Your task to perform on an android device: Open the calendar app, open the side menu, and click the "Day" option Image 0: 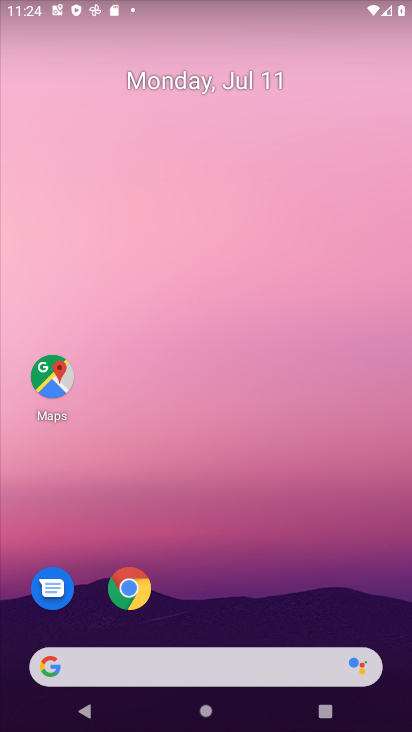
Step 0: drag from (270, 376) to (245, 33)
Your task to perform on an android device: Open the calendar app, open the side menu, and click the "Day" option Image 1: 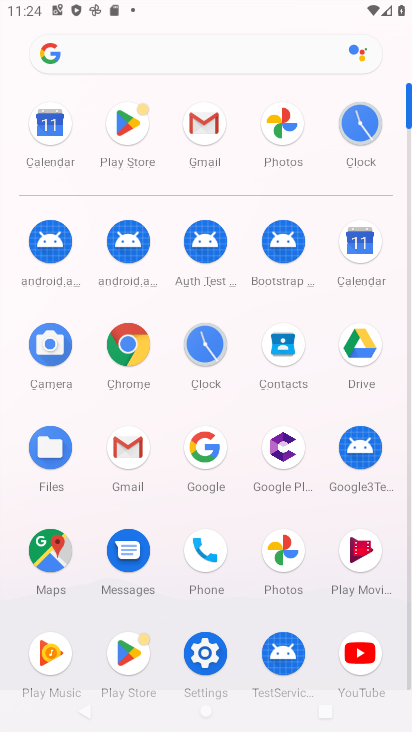
Step 1: click (367, 254)
Your task to perform on an android device: Open the calendar app, open the side menu, and click the "Day" option Image 2: 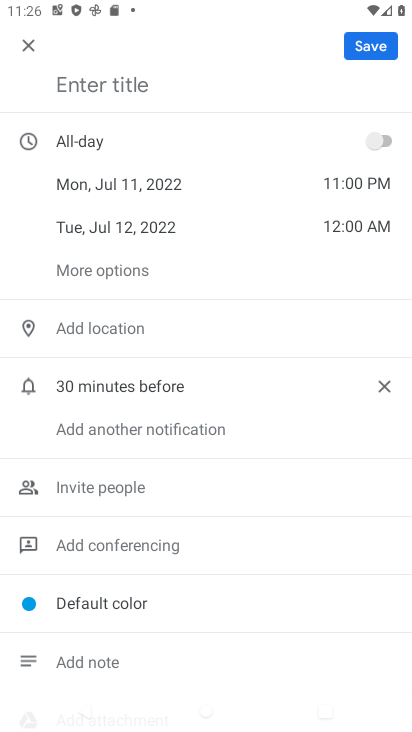
Step 2: click (31, 45)
Your task to perform on an android device: Open the calendar app, open the side menu, and click the "Day" option Image 3: 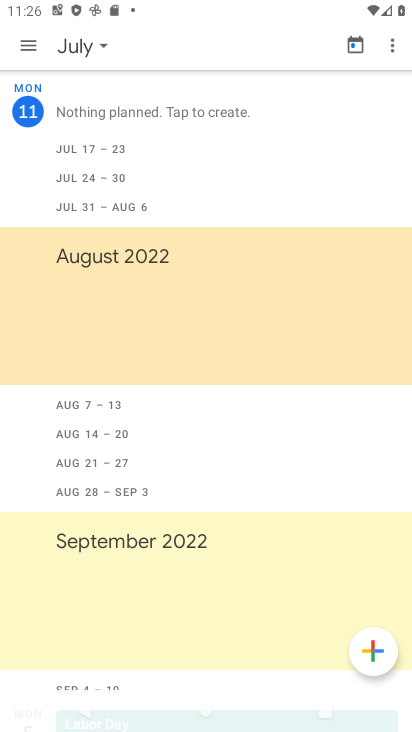
Step 3: click (31, 45)
Your task to perform on an android device: Open the calendar app, open the side menu, and click the "Day" option Image 4: 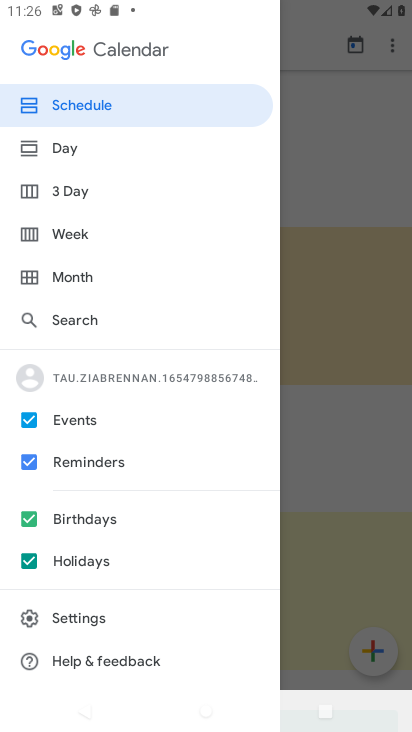
Step 4: click (80, 150)
Your task to perform on an android device: Open the calendar app, open the side menu, and click the "Day" option Image 5: 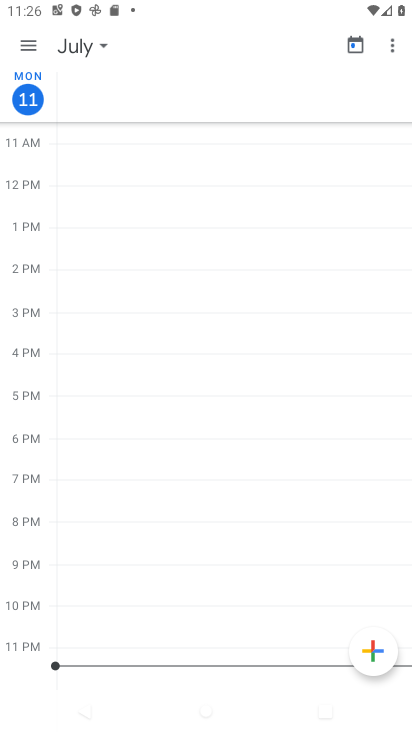
Step 5: task complete